Your task to perform on an android device: Open notification settings Image 0: 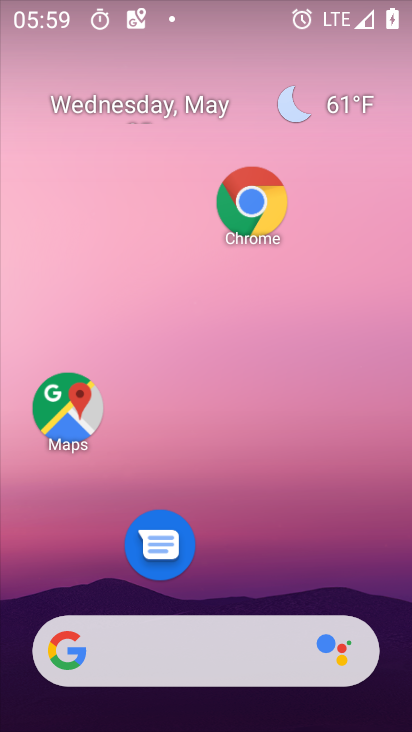
Step 0: drag from (196, 619) to (161, 204)
Your task to perform on an android device: Open notification settings Image 1: 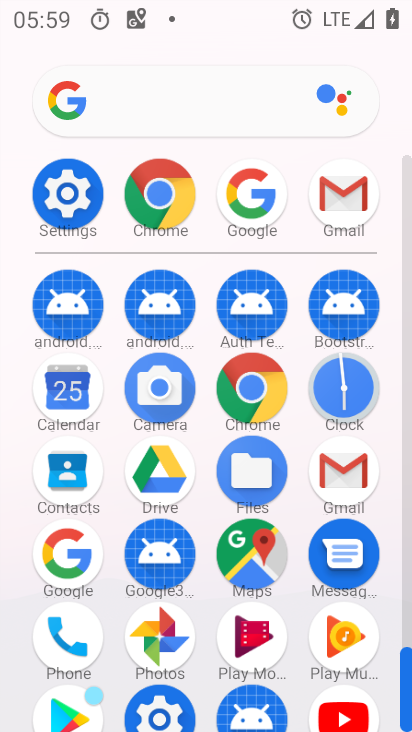
Step 1: click (77, 209)
Your task to perform on an android device: Open notification settings Image 2: 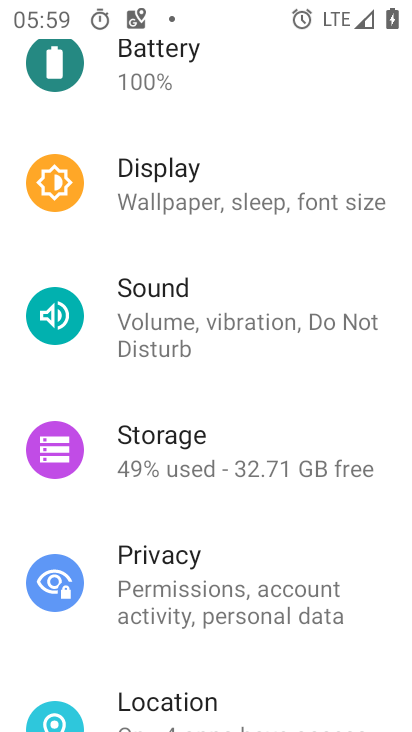
Step 2: drag from (184, 709) to (211, 430)
Your task to perform on an android device: Open notification settings Image 3: 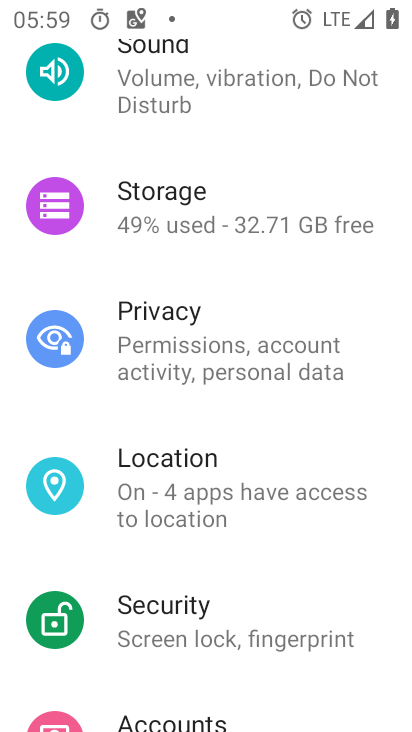
Step 3: drag from (204, 104) to (204, 588)
Your task to perform on an android device: Open notification settings Image 4: 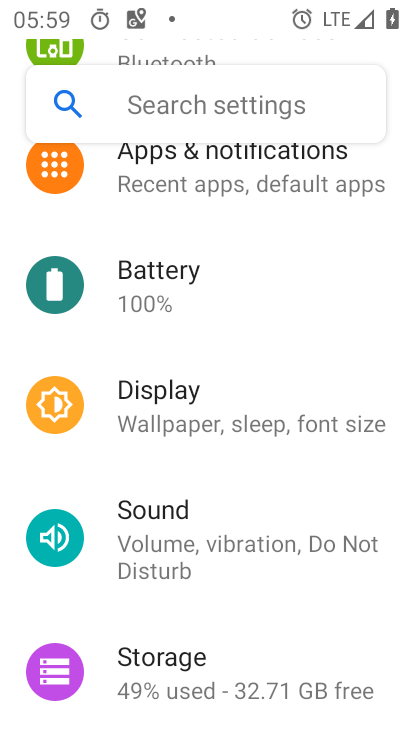
Step 4: drag from (277, 278) to (277, 537)
Your task to perform on an android device: Open notification settings Image 5: 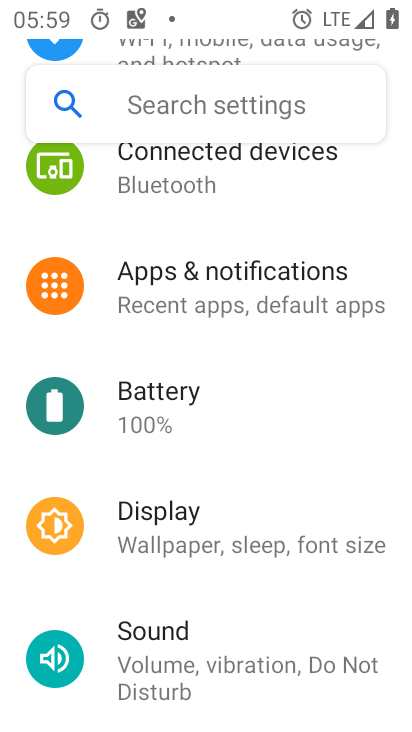
Step 5: click (237, 279)
Your task to perform on an android device: Open notification settings Image 6: 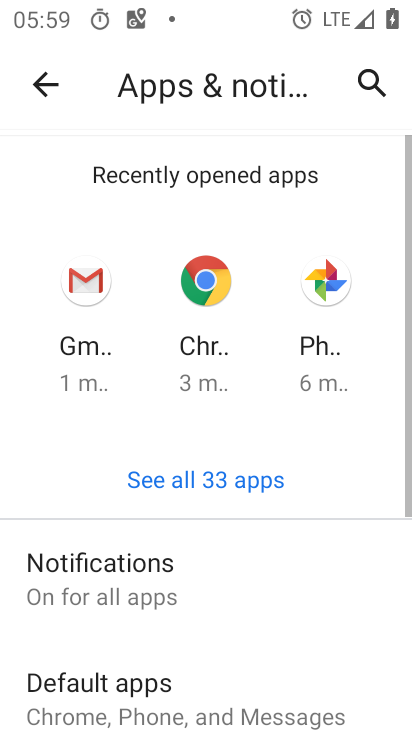
Step 6: drag from (205, 681) to (153, 399)
Your task to perform on an android device: Open notification settings Image 7: 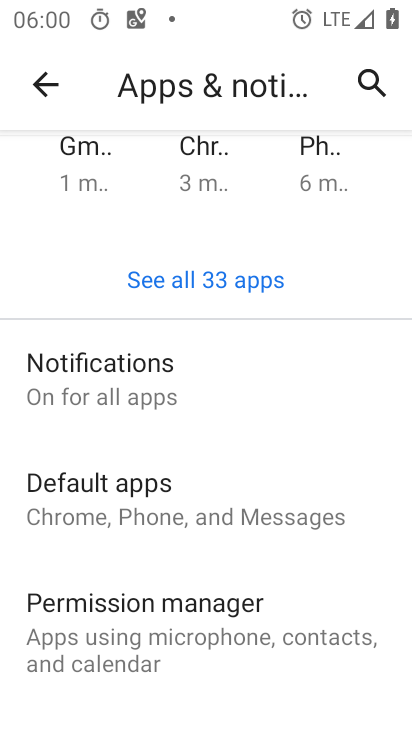
Step 7: drag from (201, 689) to (205, 355)
Your task to perform on an android device: Open notification settings Image 8: 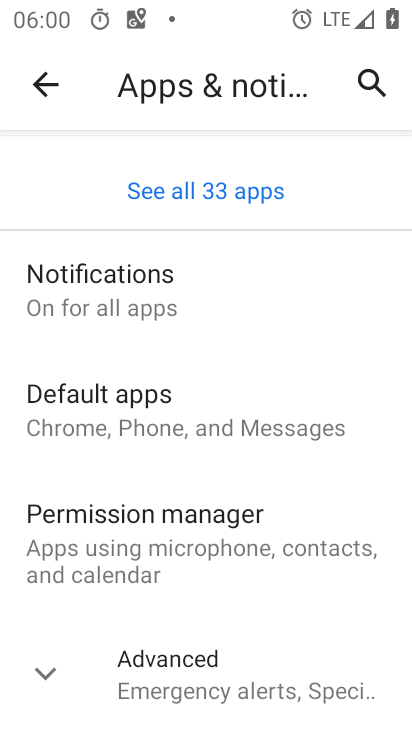
Step 8: click (189, 668)
Your task to perform on an android device: Open notification settings Image 9: 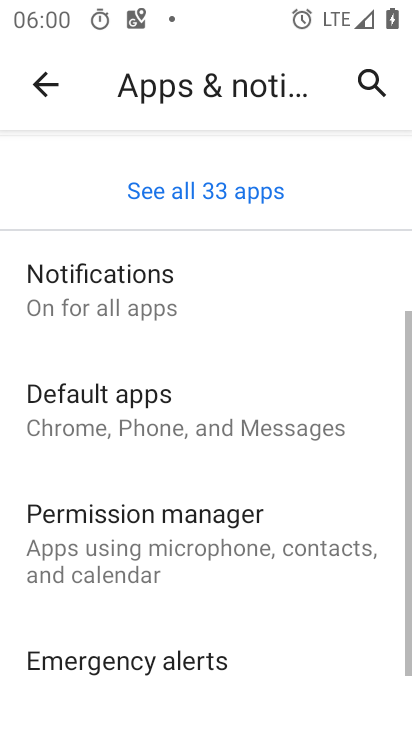
Step 9: task complete